Your task to perform on an android device: choose inbox layout in the gmail app Image 0: 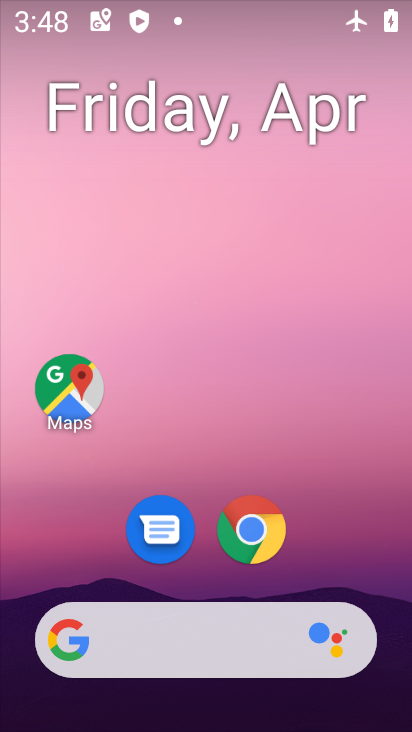
Step 0: drag from (349, 527) to (353, 42)
Your task to perform on an android device: choose inbox layout in the gmail app Image 1: 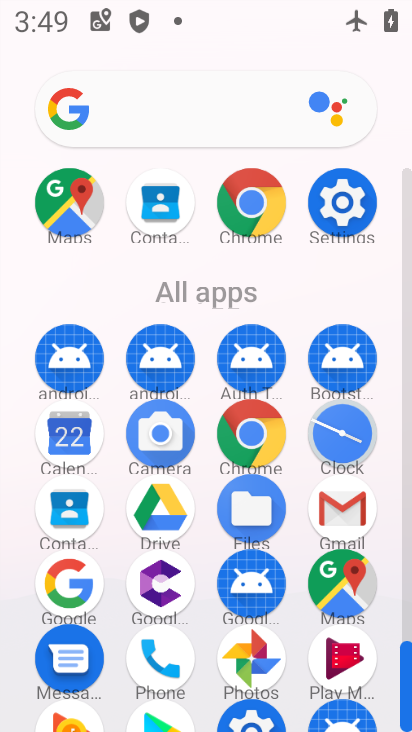
Step 1: click (341, 515)
Your task to perform on an android device: choose inbox layout in the gmail app Image 2: 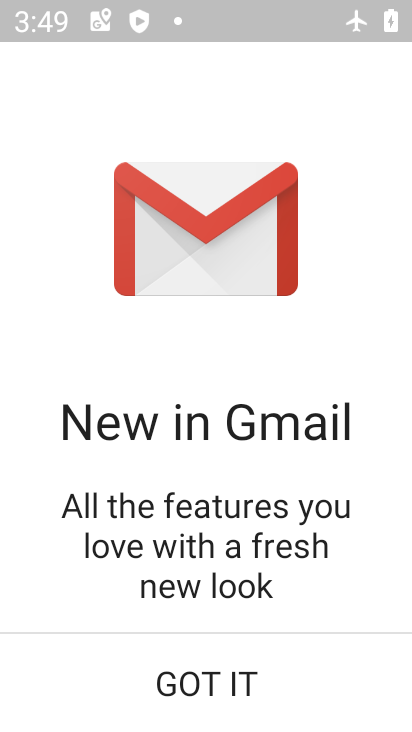
Step 2: click (287, 702)
Your task to perform on an android device: choose inbox layout in the gmail app Image 3: 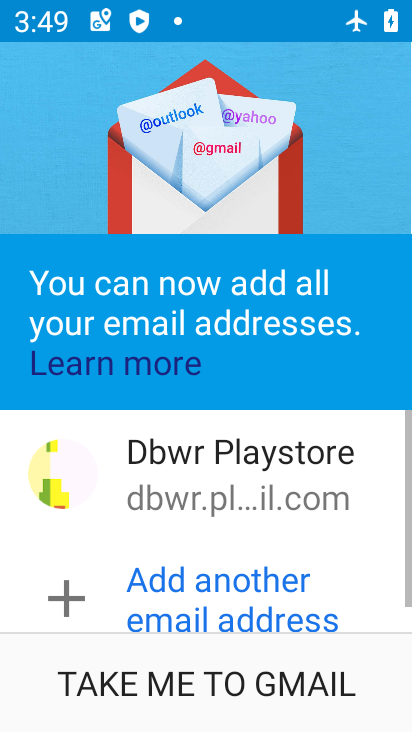
Step 3: click (291, 686)
Your task to perform on an android device: choose inbox layout in the gmail app Image 4: 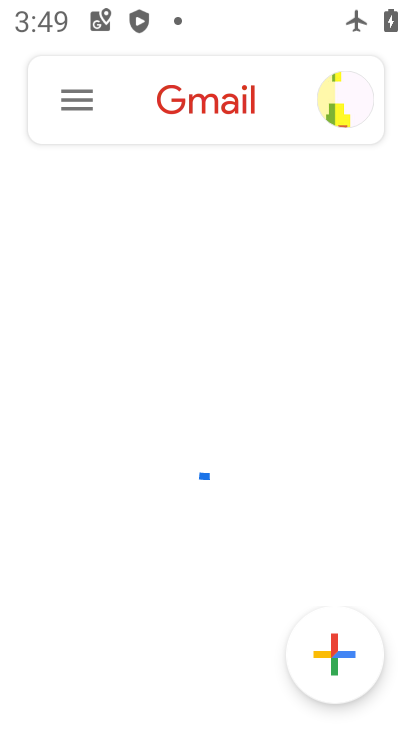
Step 4: click (72, 106)
Your task to perform on an android device: choose inbox layout in the gmail app Image 5: 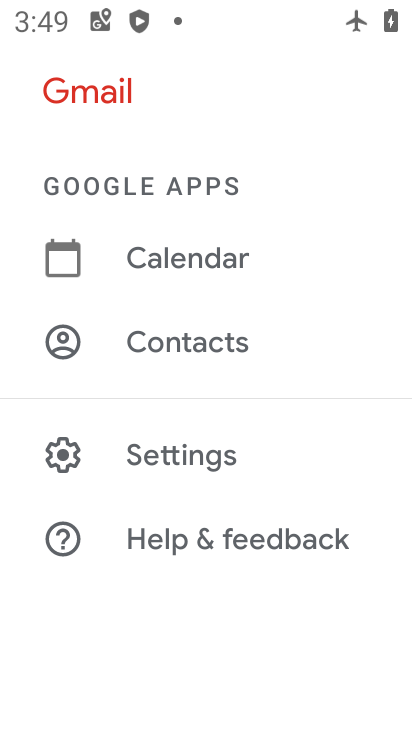
Step 5: click (158, 440)
Your task to perform on an android device: choose inbox layout in the gmail app Image 6: 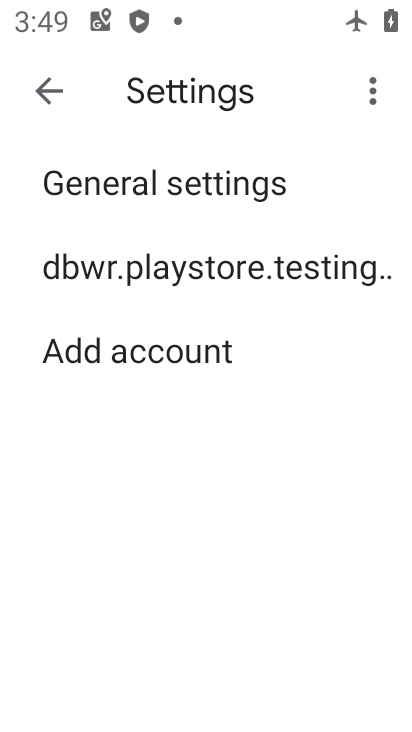
Step 6: click (177, 274)
Your task to perform on an android device: choose inbox layout in the gmail app Image 7: 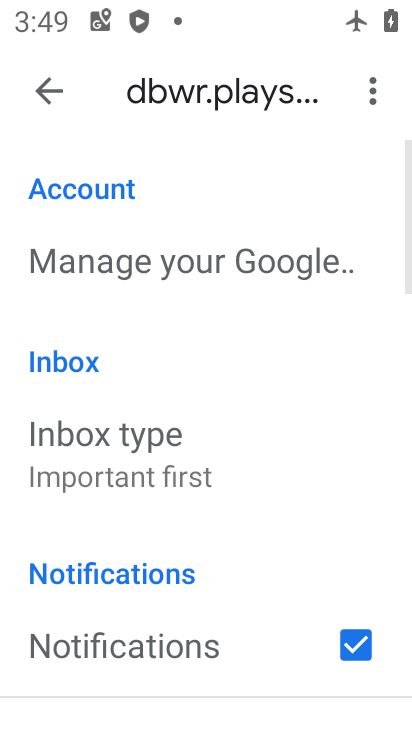
Step 7: click (187, 457)
Your task to perform on an android device: choose inbox layout in the gmail app Image 8: 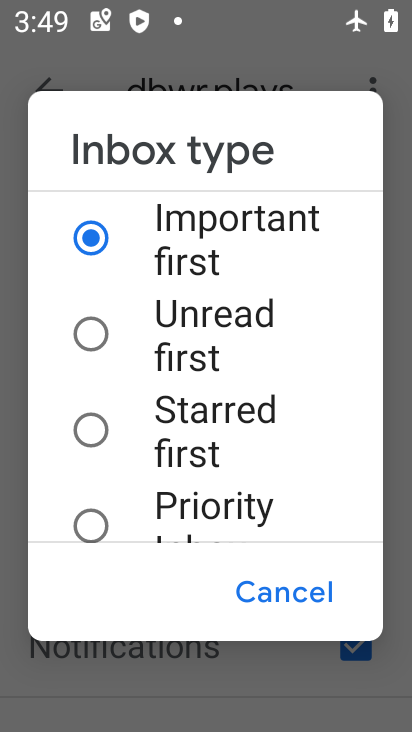
Step 8: click (198, 419)
Your task to perform on an android device: choose inbox layout in the gmail app Image 9: 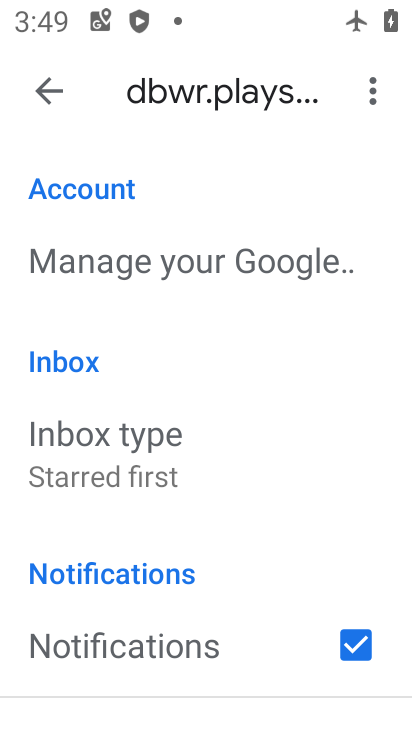
Step 9: task complete